Your task to perform on an android device: change notification settings in the gmail app Image 0: 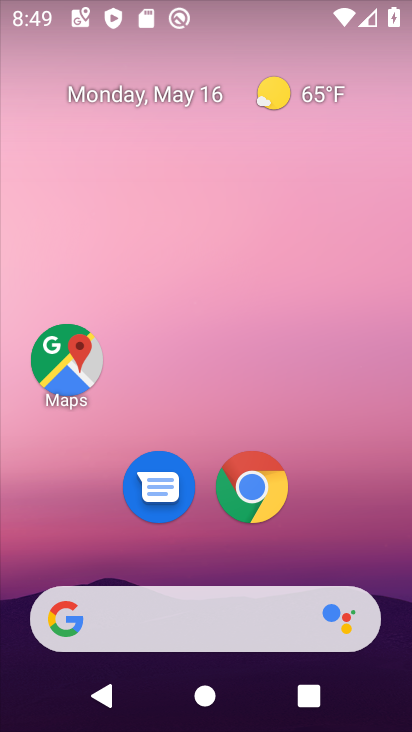
Step 0: drag from (351, 546) to (352, 166)
Your task to perform on an android device: change notification settings in the gmail app Image 1: 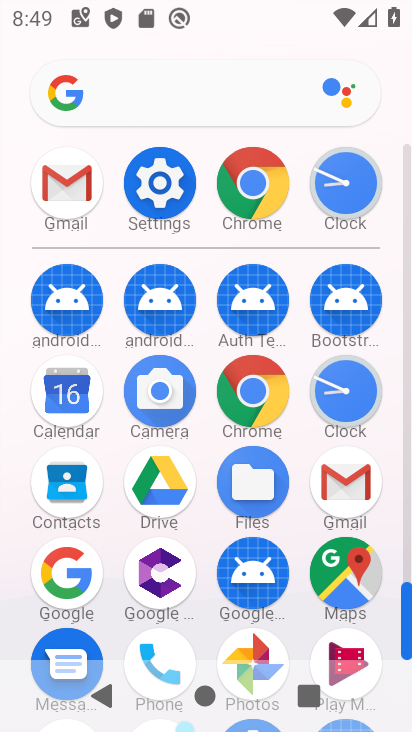
Step 1: click (371, 489)
Your task to perform on an android device: change notification settings in the gmail app Image 2: 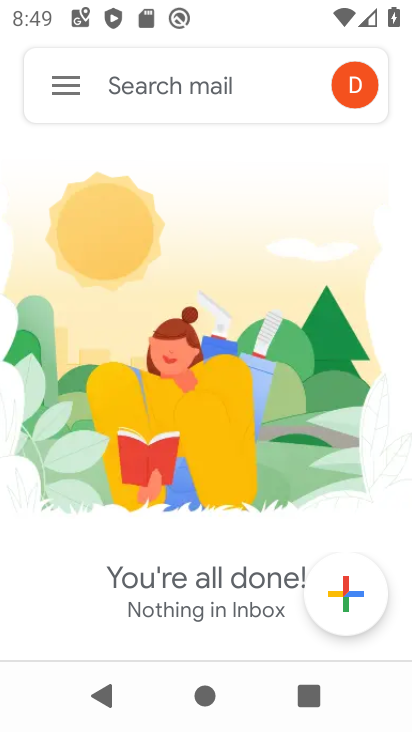
Step 2: click (60, 93)
Your task to perform on an android device: change notification settings in the gmail app Image 3: 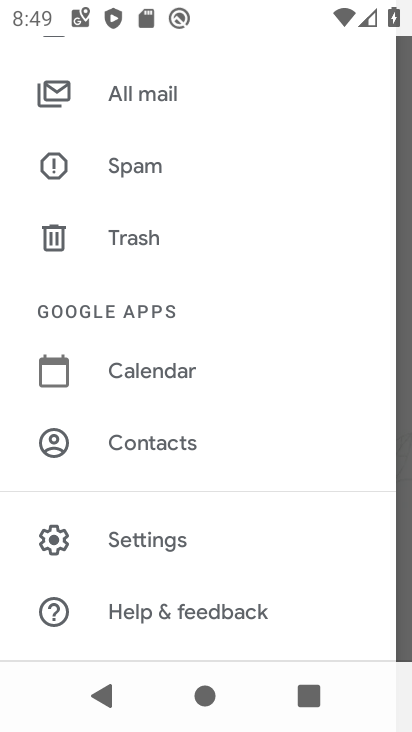
Step 3: drag from (325, 536) to (305, 342)
Your task to perform on an android device: change notification settings in the gmail app Image 4: 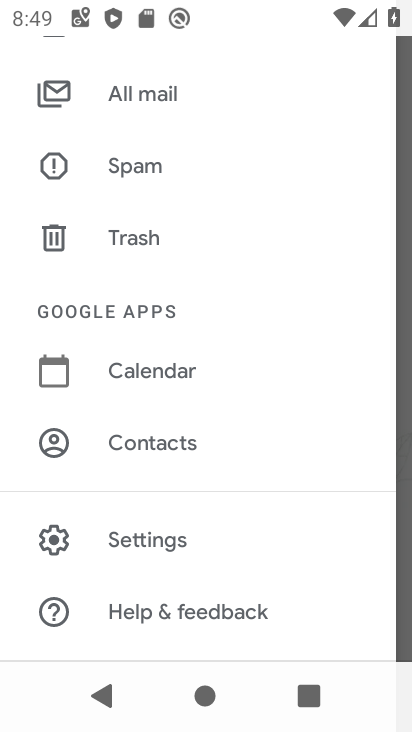
Step 4: drag from (310, 300) to (303, 498)
Your task to perform on an android device: change notification settings in the gmail app Image 5: 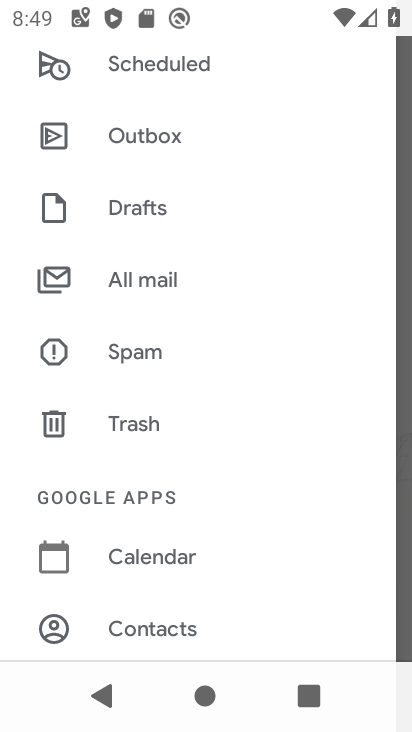
Step 5: drag from (298, 239) to (301, 480)
Your task to perform on an android device: change notification settings in the gmail app Image 6: 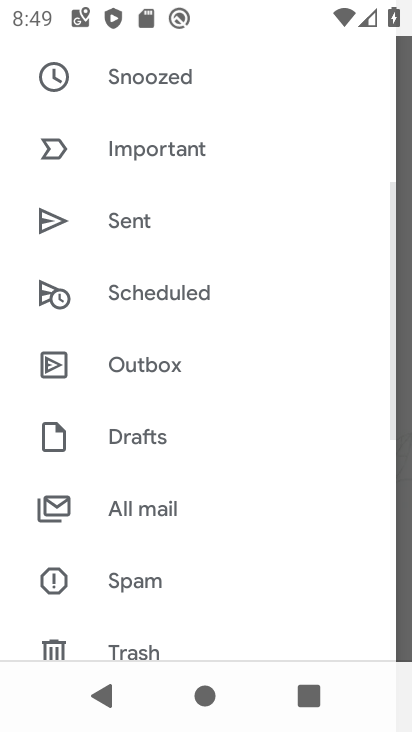
Step 6: drag from (294, 274) to (314, 456)
Your task to perform on an android device: change notification settings in the gmail app Image 7: 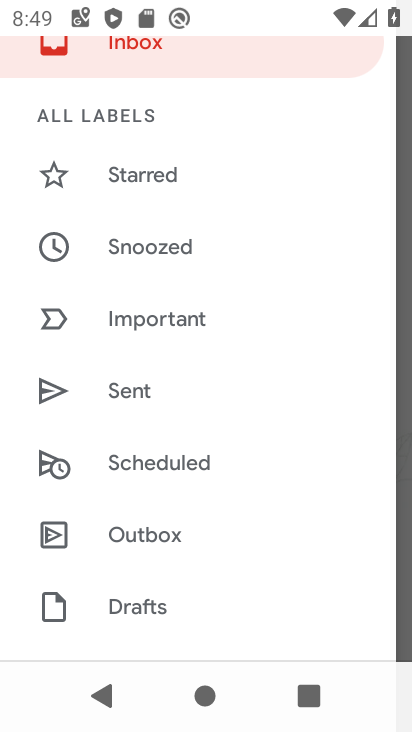
Step 7: drag from (315, 362) to (313, 489)
Your task to perform on an android device: change notification settings in the gmail app Image 8: 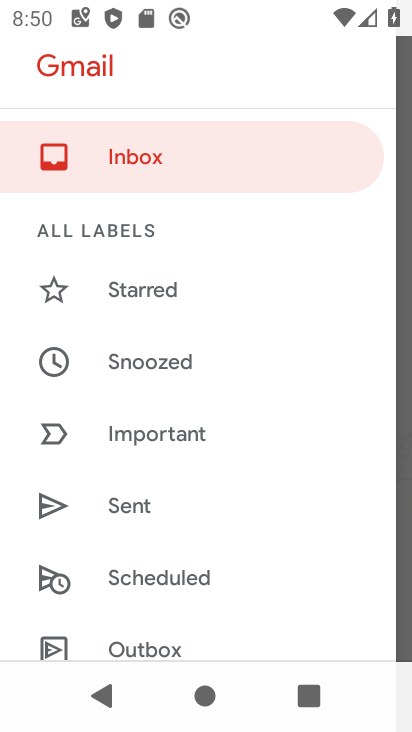
Step 8: drag from (304, 562) to (300, 444)
Your task to perform on an android device: change notification settings in the gmail app Image 9: 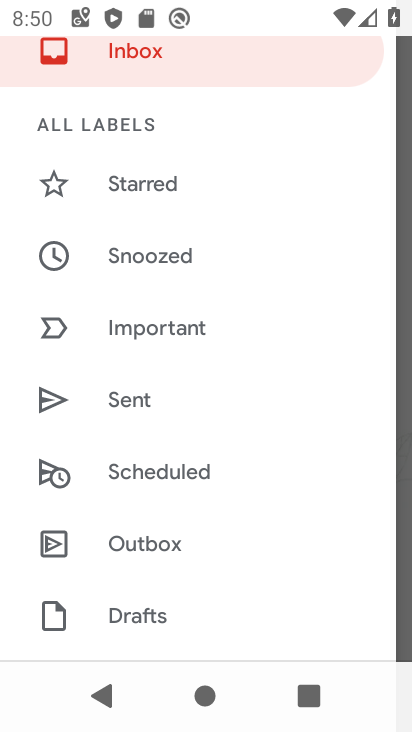
Step 9: drag from (304, 586) to (304, 475)
Your task to perform on an android device: change notification settings in the gmail app Image 10: 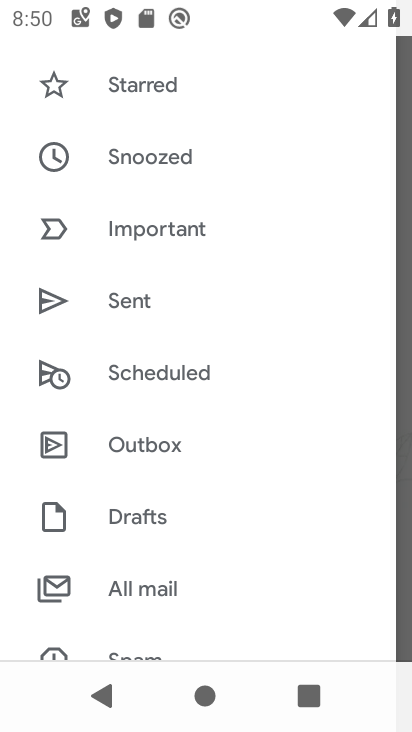
Step 10: drag from (281, 598) to (272, 480)
Your task to perform on an android device: change notification settings in the gmail app Image 11: 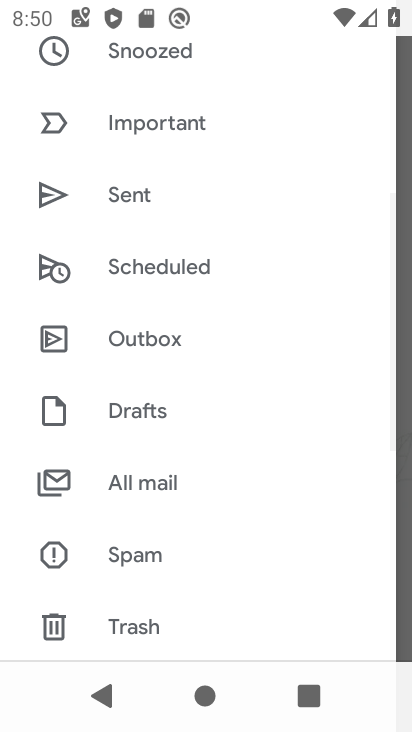
Step 11: click (274, 585)
Your task to perform on an android device: change notification settings in the gmail app Image 12: 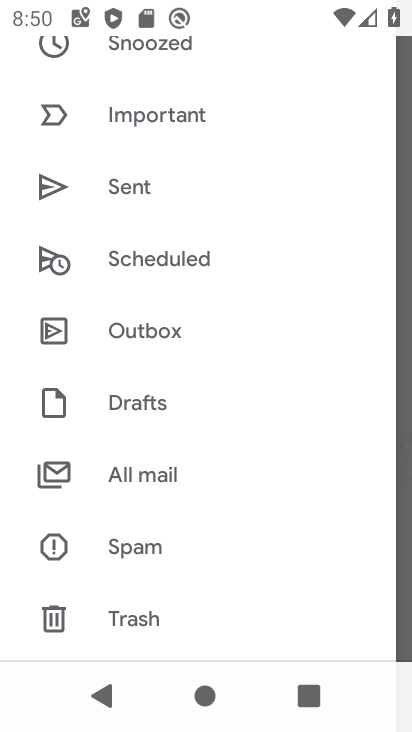
Step 12: drag from (270, 618) to (264, 566)
Your task to perform on an android device: change notification settings in the gmail app Image 13: 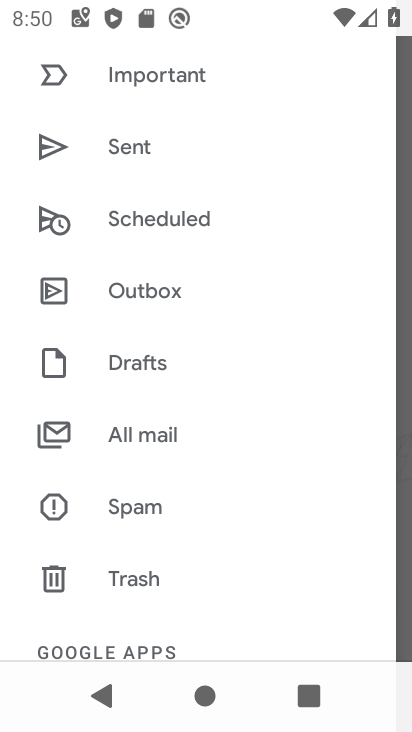
Step 13: drag from (252, 616) to (260, 458)
Your task to perform on an android device: change notification settings in the gmail app Image 14: 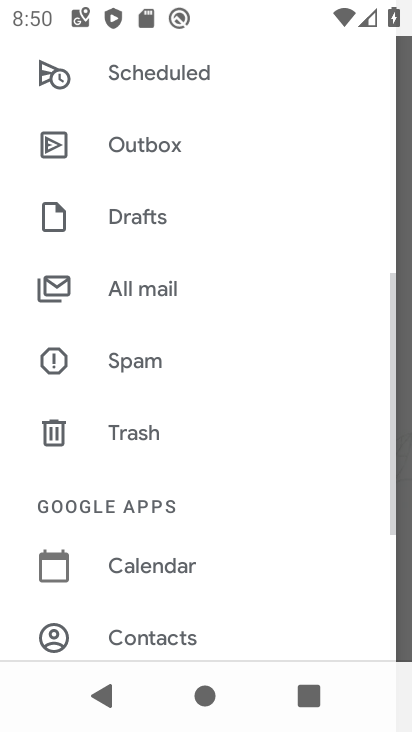
Step 14: drag from (287, 592) to (281, 511)
Your task to perform on an android device: change notification settings in the gmail app Image 15: 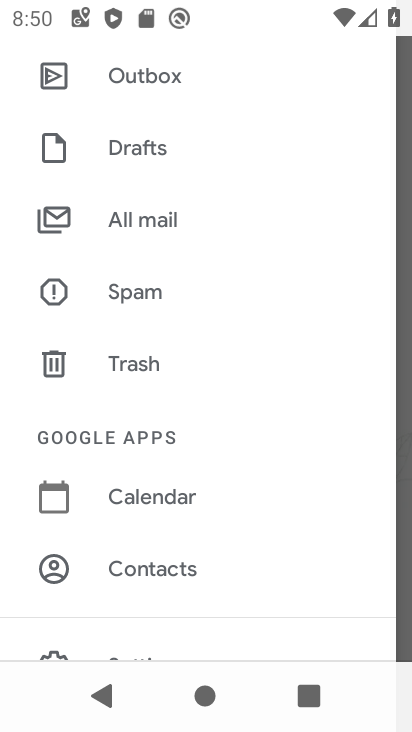
Step 15: drag from (276, 621) to (279, 483)
Your task to perform on an android device: change notification settings in the gmail app Image 16: 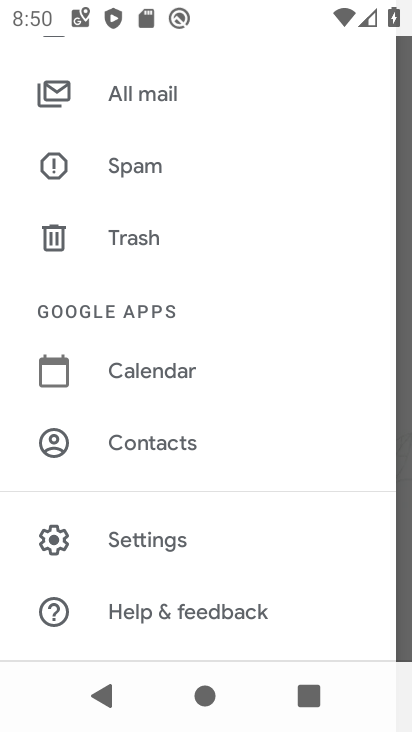
Step 16: click (168, 549)
Your task to perform on an android device: change notification settings in the gmail app Image 17: 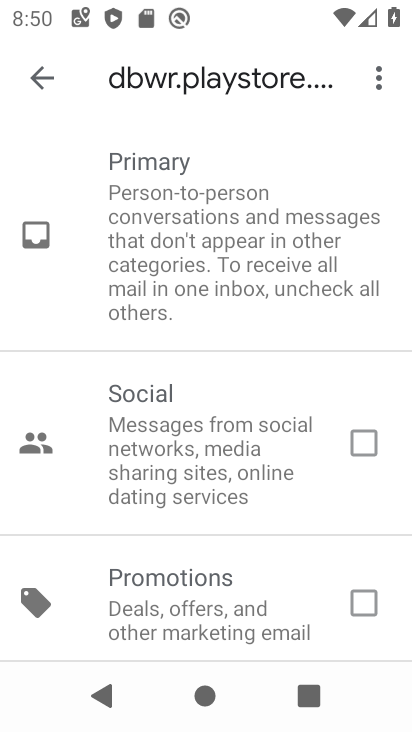
Step 17: click (40, 79)
Your task to perform on an android device: change notification settings in the gmail app Image 18: 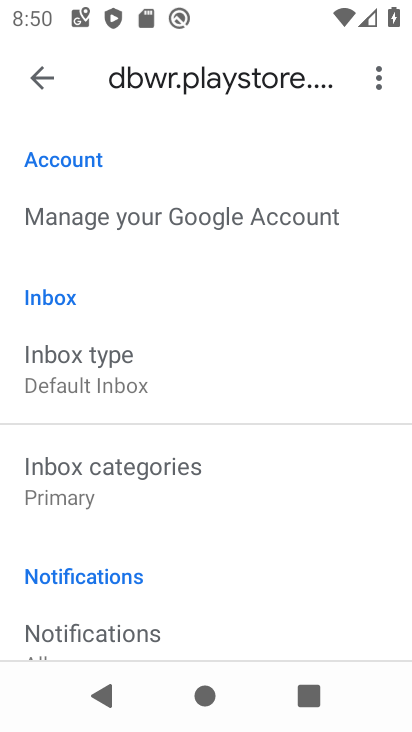
Step 18: drag from (249, 588) to (247, 443)
Your task to perform on an android device: change notification settings in the gmail app Image 19: 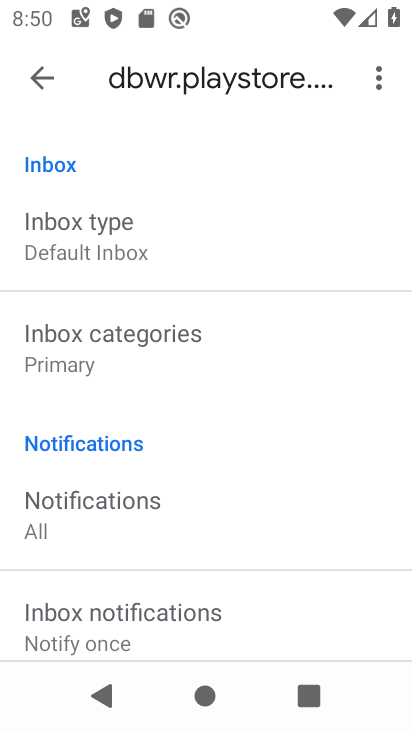
Step 19: drag from (298, 601) to (301, 443)
Your task to perform on an android device: change notification settings in the gmail app Image 20: 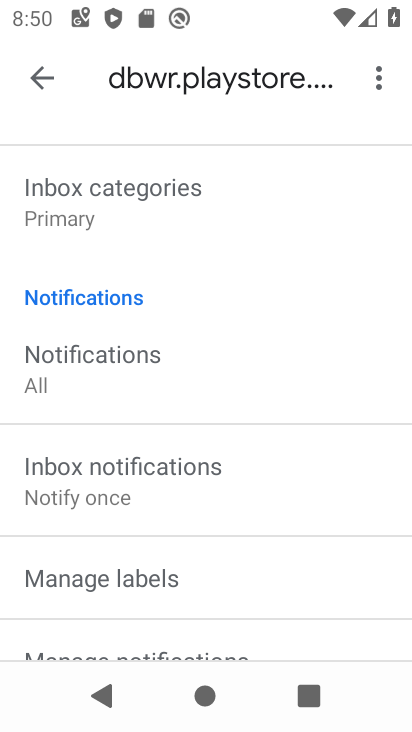
Step 20: drag from (290, 585) to (280, 479)
Your task to perform on an android device: change notification settings in the gmail app Image 21: 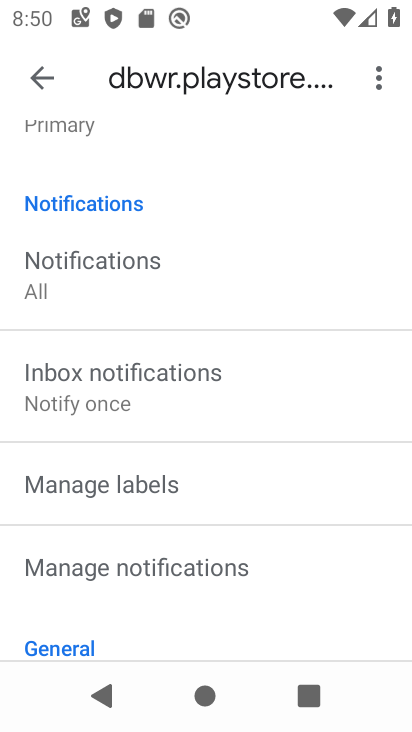
Step 21: drag from (298, 585) to (298, 462)
Your task to perform on an android device: change notification settings in the gmail app Image 22: 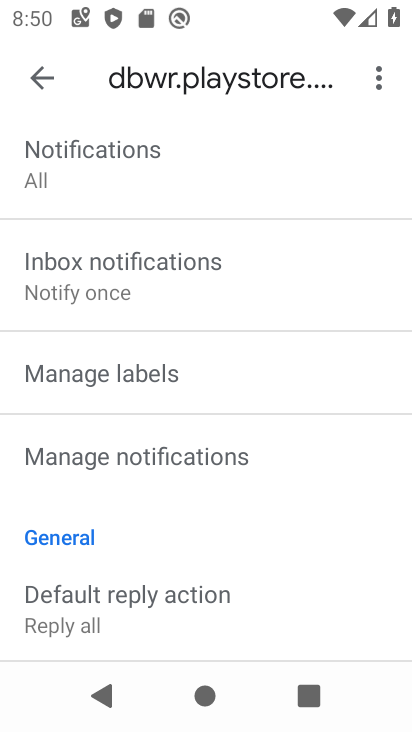
Step 22: click (208, 456)
Your task to perform on an android device: change notification settings in the gmail app Image 23: 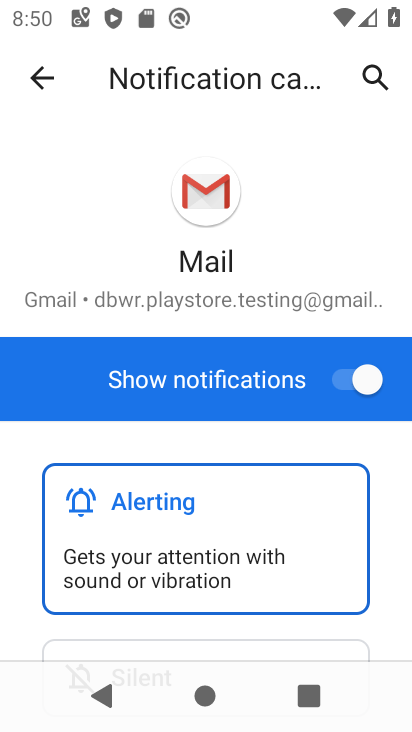
Step 23: click (371, 390)
Your task to perform on an android device: change notification settings in the gmail app Image 24: 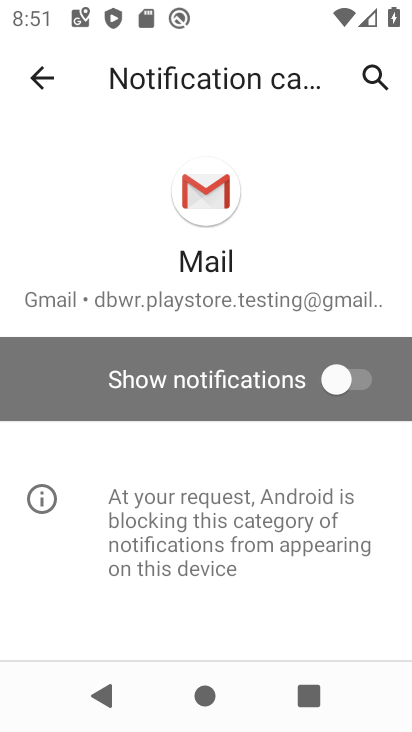
Step 24: task complete